Your task to perform on an android device: open app "McDonald's" (install if not already installed) Image 0: 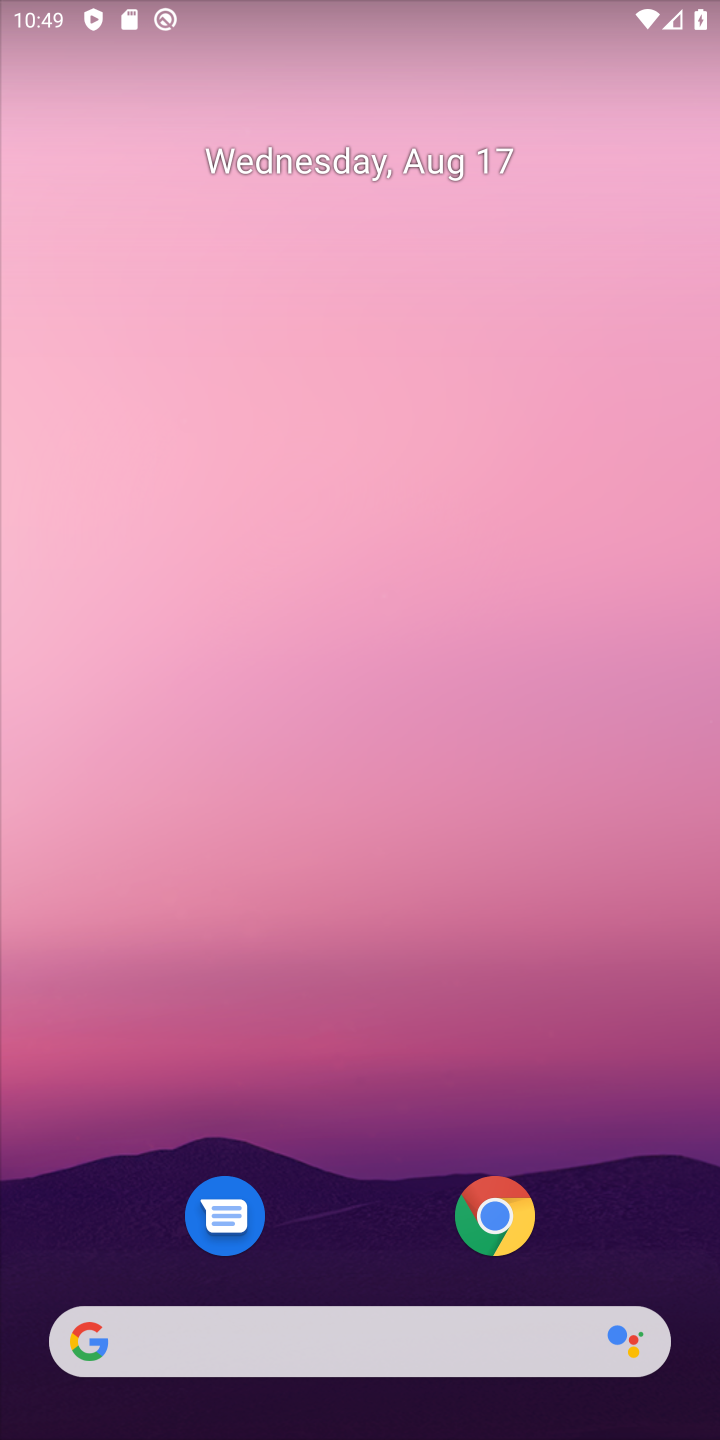
Step 0: drag from (615, 925) to (608, 234)
Your task to perform on an android device: open app "McDonald's" (install if not already installed) Image 1: 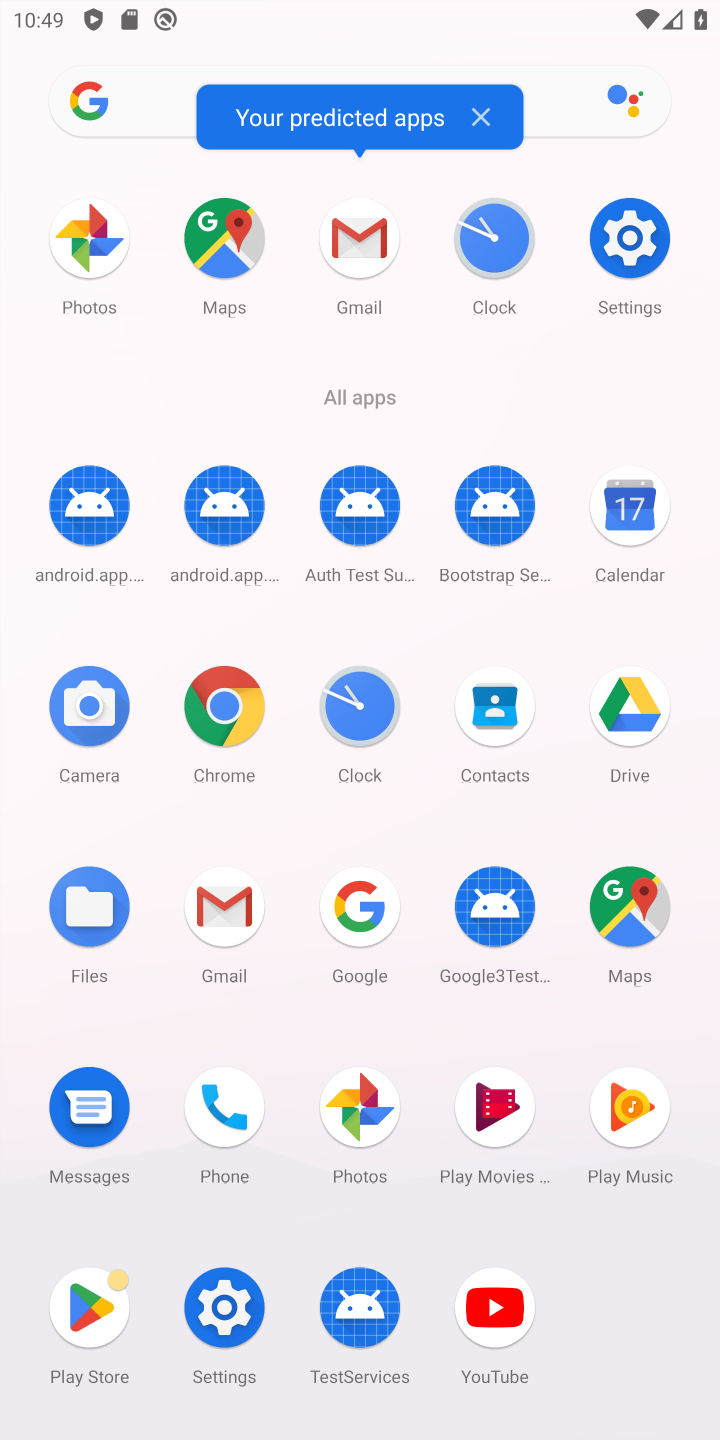
Step 1: click (62, 1311)
Your task to perform on an android device: open app "McDonald's" (install if not already installed) Image 2: 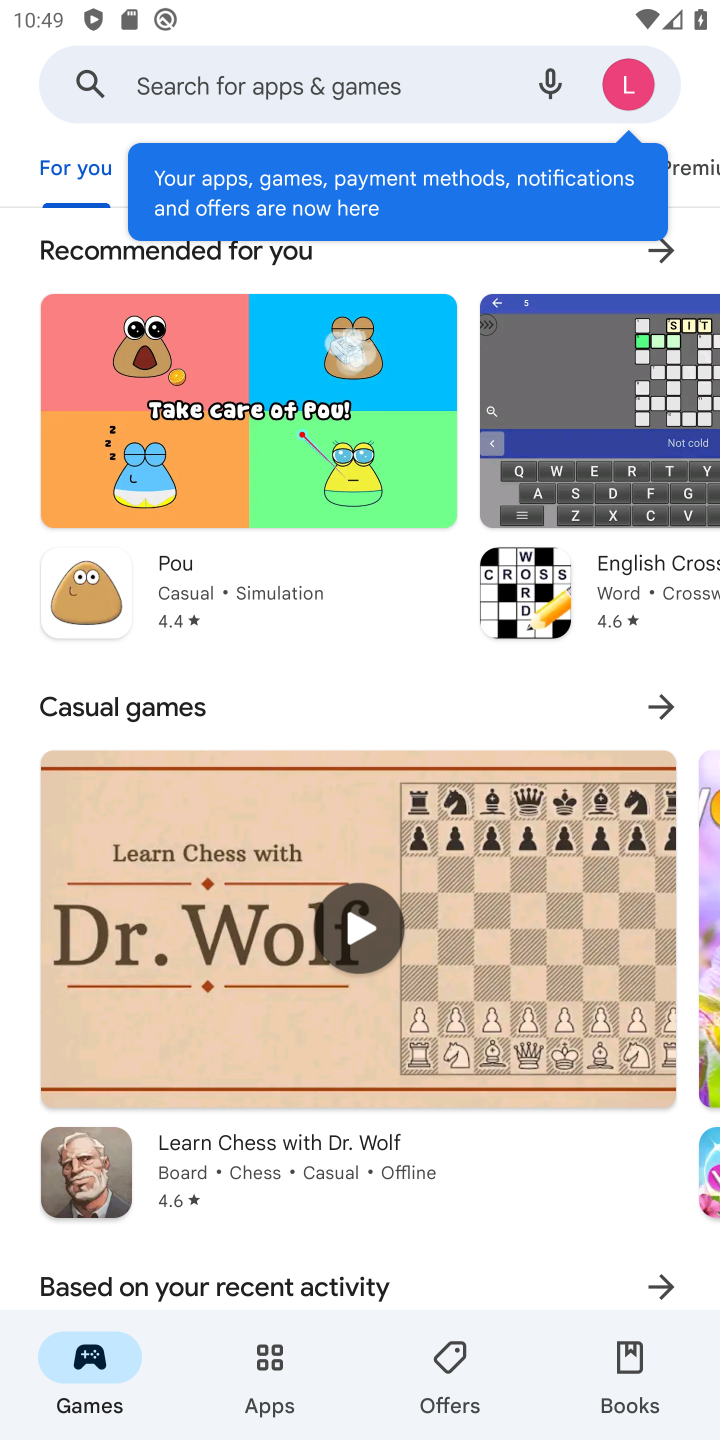
Step 2: click (433, 89)
Your task to perform on an android device: open app "McDonald's" (install if not already installed) Image 3: 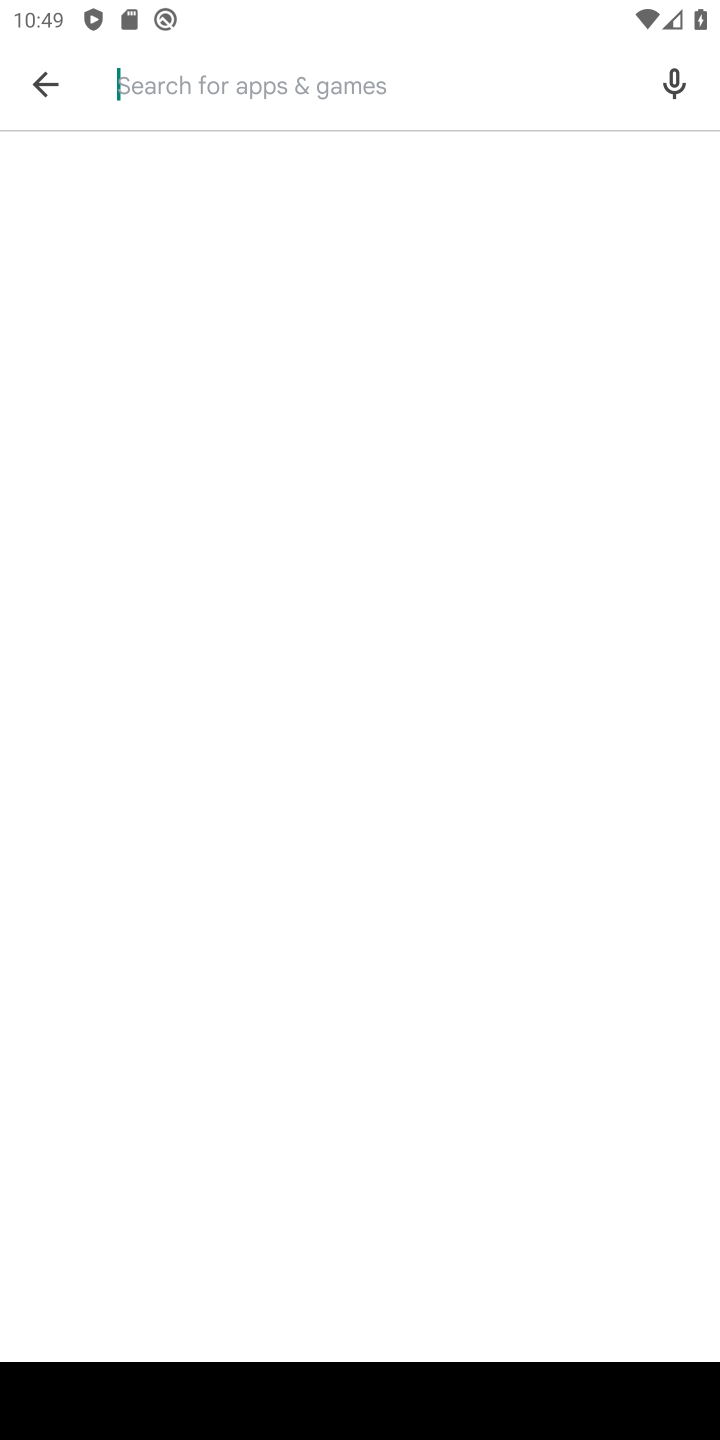
Step 3: type "mcdonalds"
Your task to perform on an android device: open app "McDonald's" (install if not already installed) Image 4: 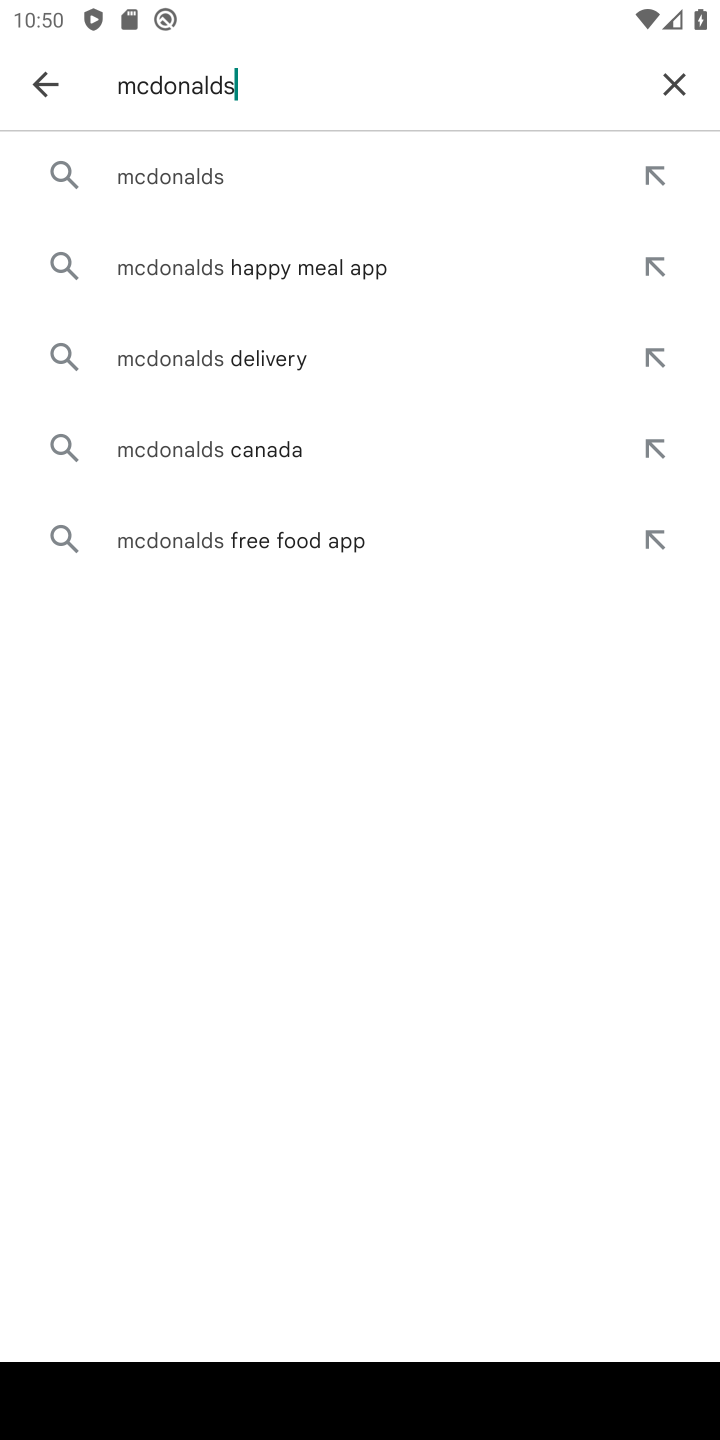
Step 4: click (224, 177)
Your task to perform on an android device: open app "McDonald's" (install if not already installed) Image 5: 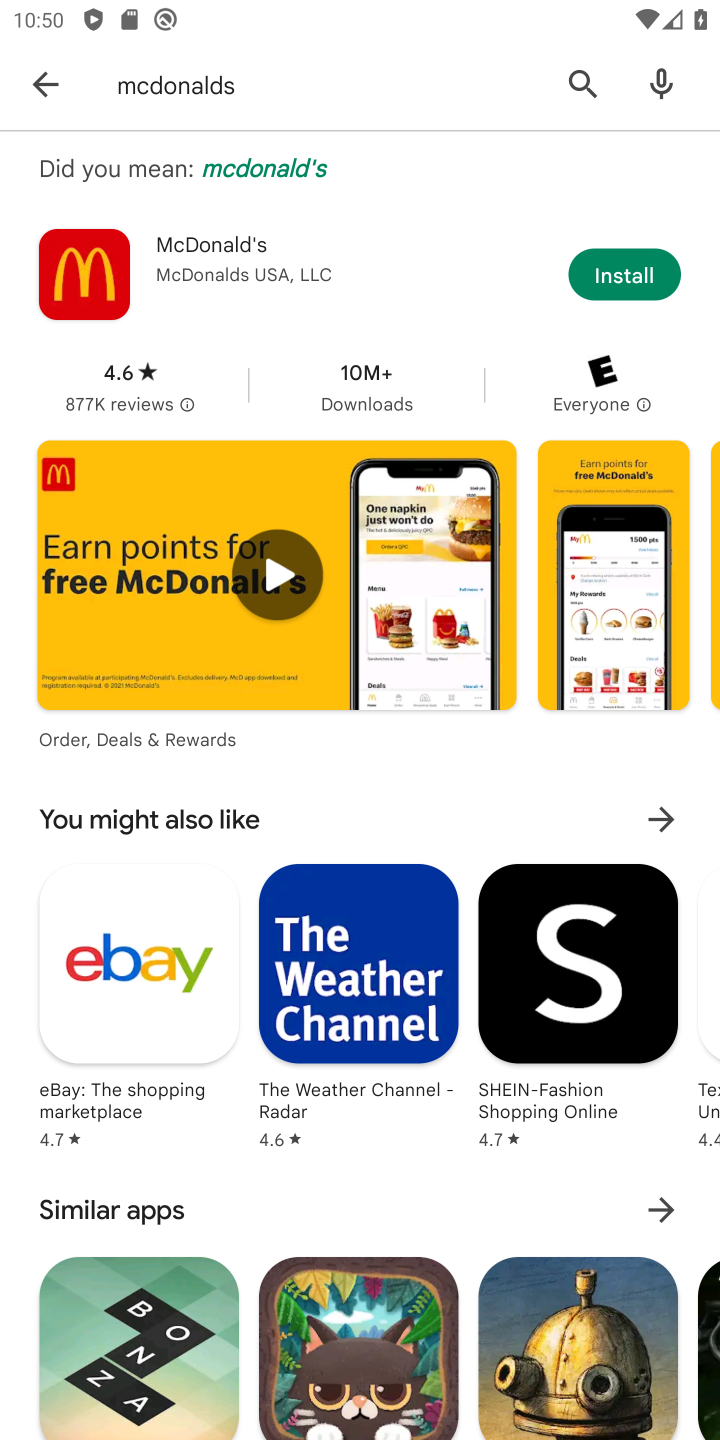
Step 5: click (606, 273)
Your task to perform on an android device: open app "McDonald's" (install if not already installed) Image 6: 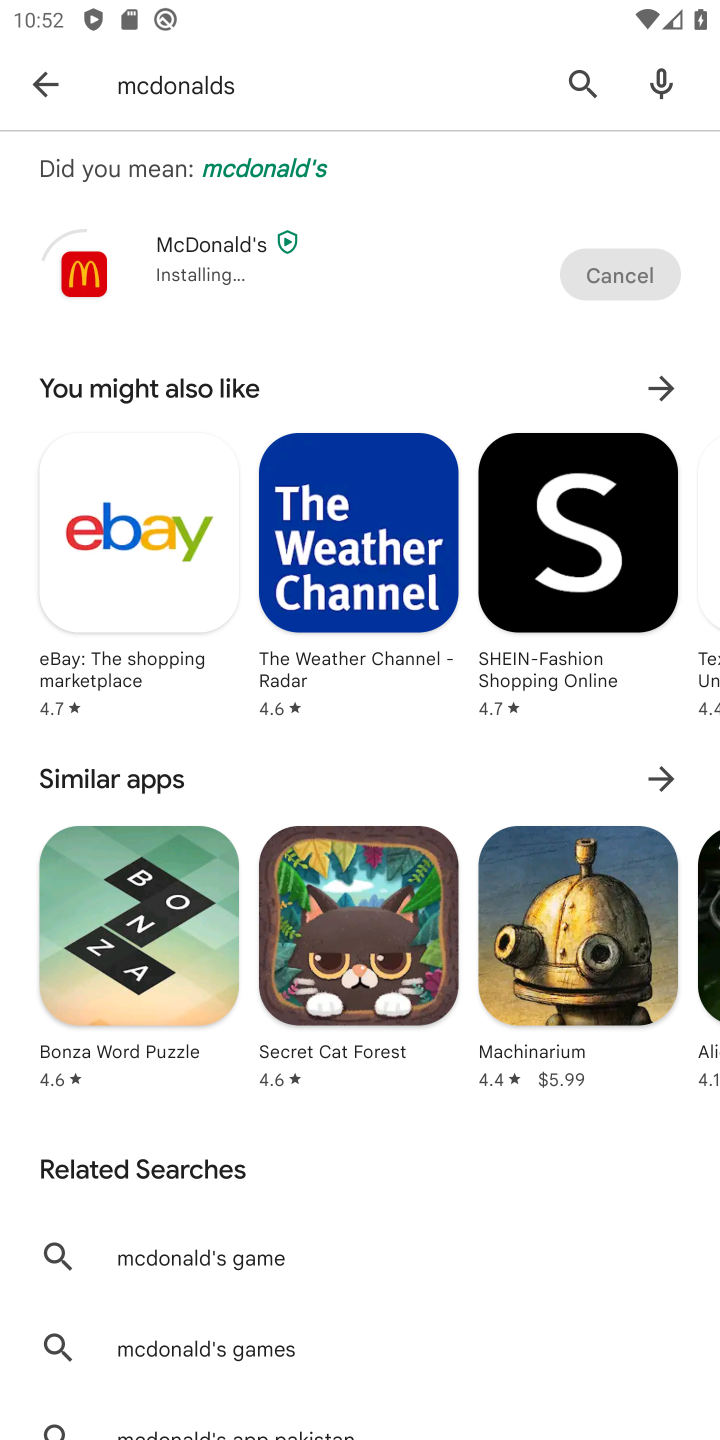
Step 6: drag from (323, 327) to (339, 420)
Your task to perform on an android device: open app "McDonald's" (install if not already installed) Image 7: 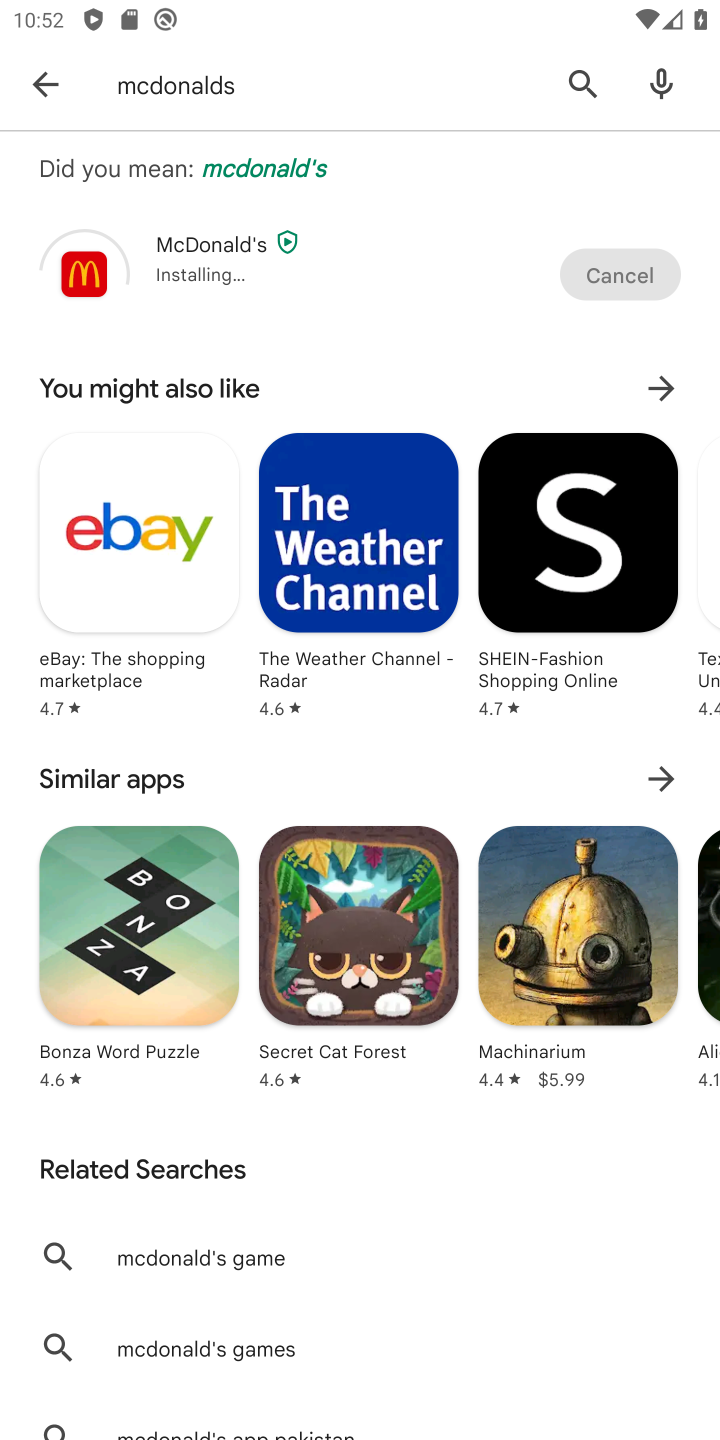
Step 7: click (252, 266)
Your task to perform on an android device: open app "McDonald's" (install if not already installed) Image 8: 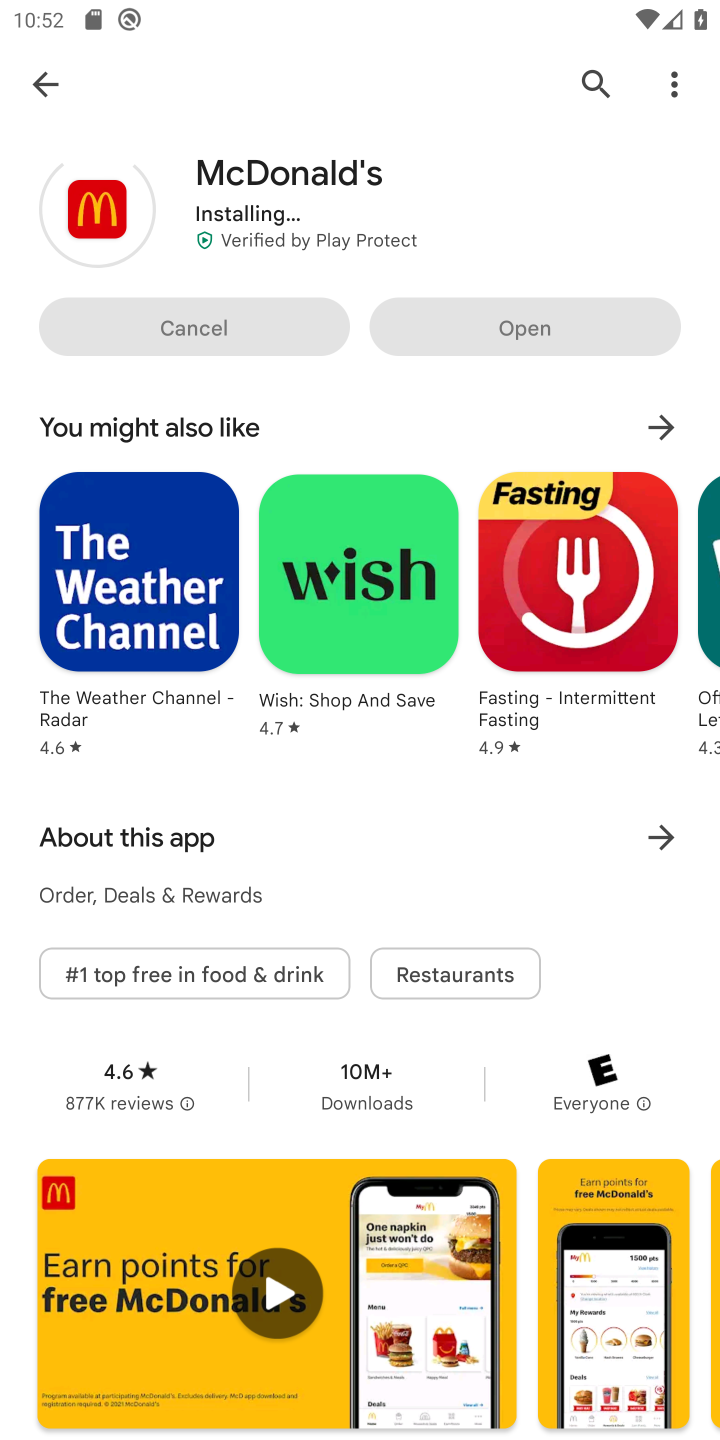
Step 8: drag from (446, 410) to (440, 722)
Your task to perform on an android device: open app "McDonald's" (install if not already installed) Image 9: 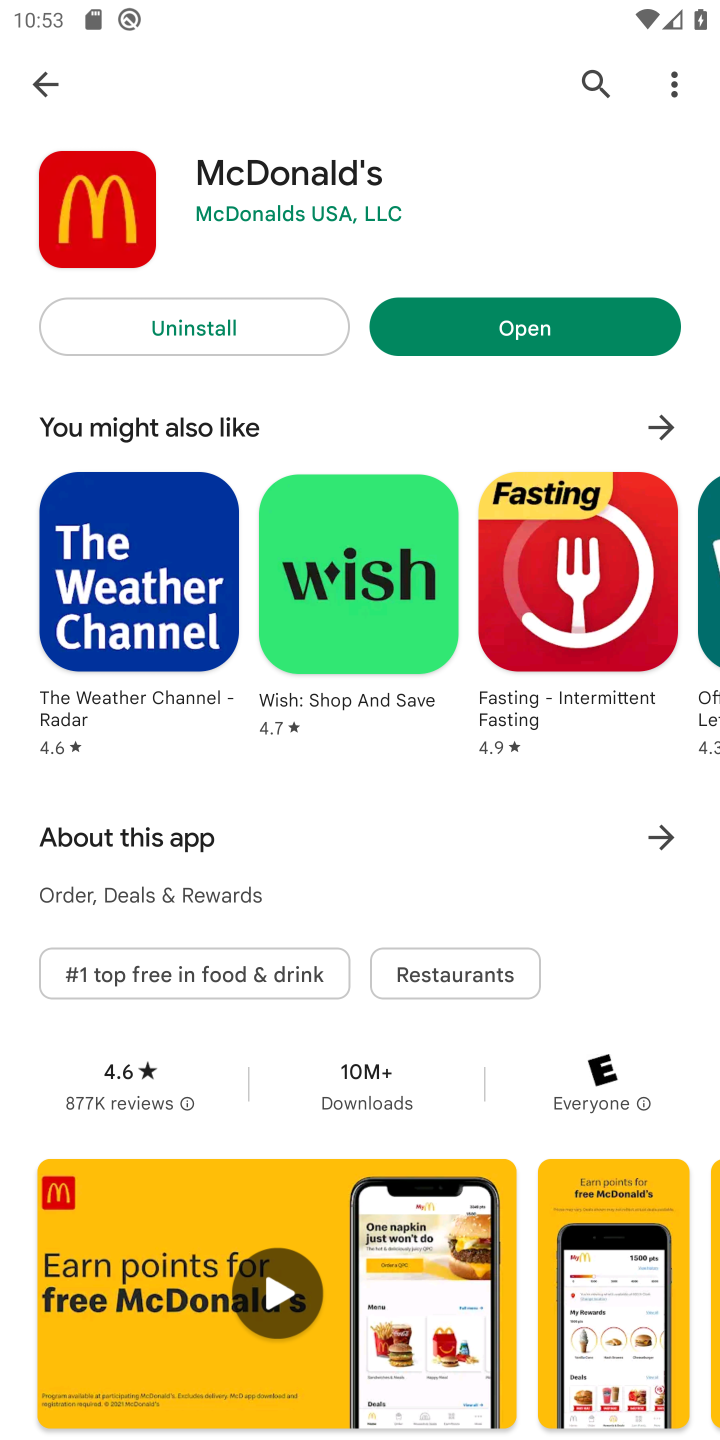
Step 9: click (524, 321)
Your task to perform on an android device: open app "McDonald's" (install if not already installed) Image 10: 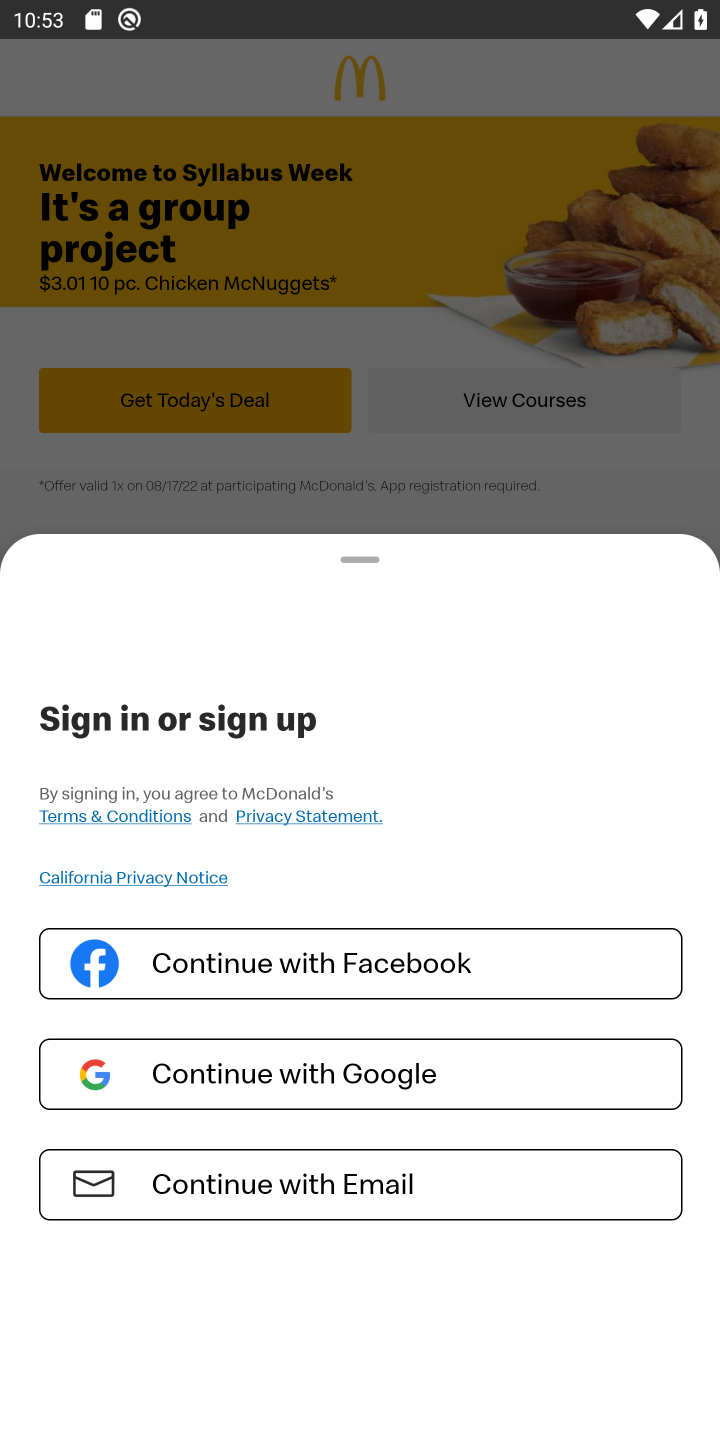
Step 10: click (466, 455)
Your task to perform on an android device: open app "McDonald's" (install if not already installed) Image 11: 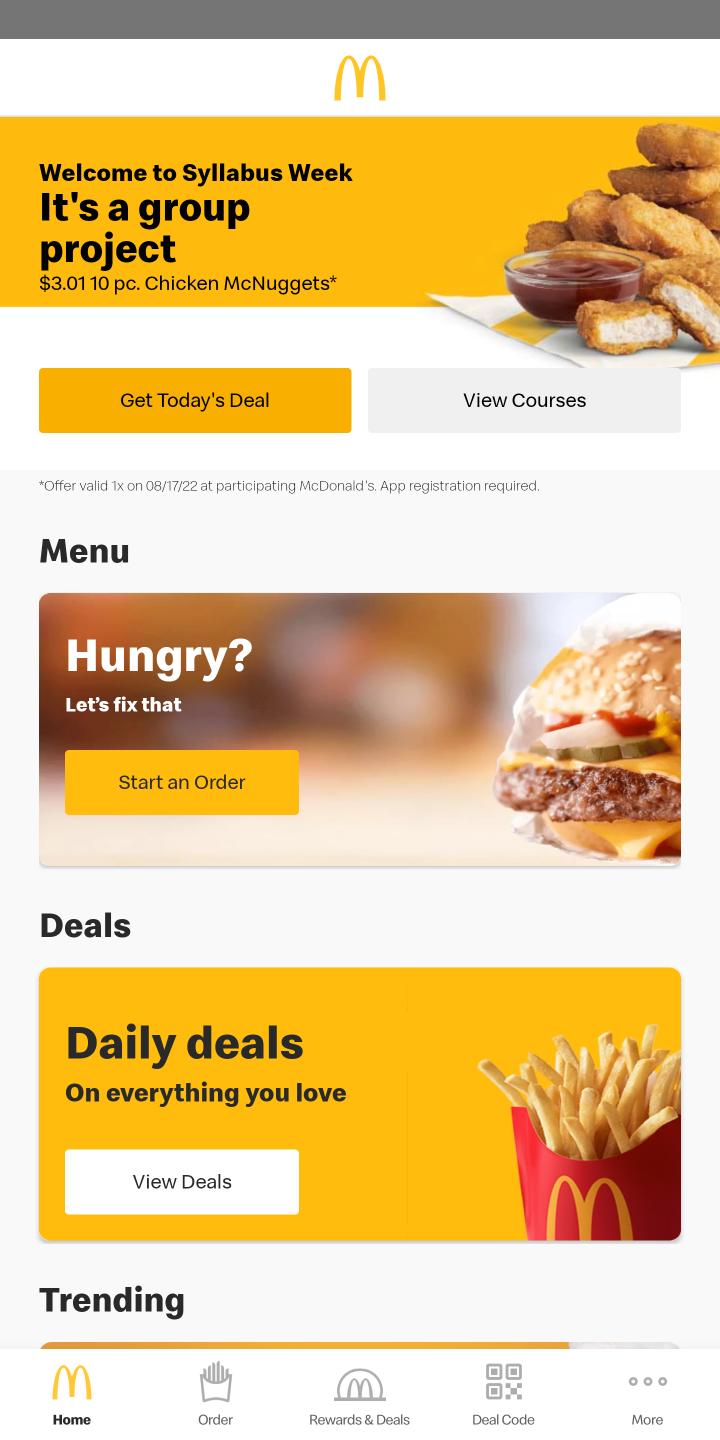
Step 11: task complete